Your task to perform on an android device: Search for Mexican restaurants on Maps Image 0: 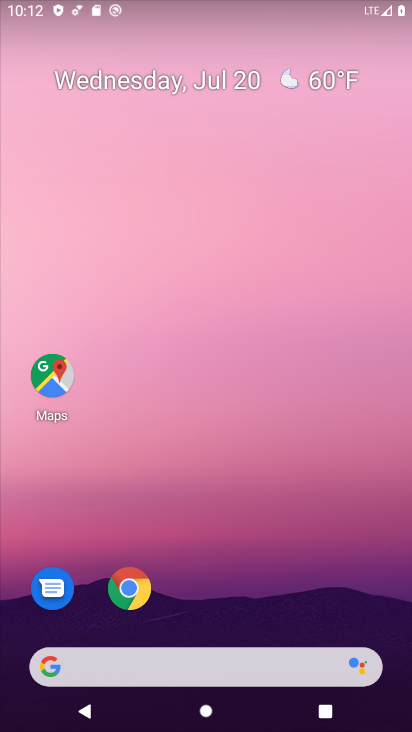
Step 0: click (62, 377)
Your task to perform on an android device: Search for Mexican restaurants on Maps Image 1: 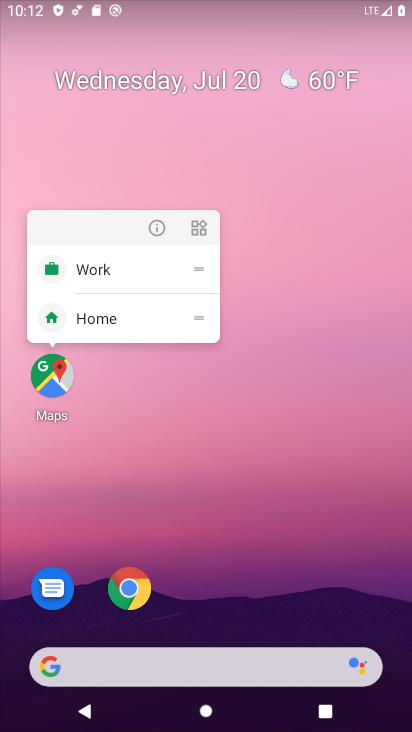
Step 1: click (61, 376)
Your task to perform on an android device: Search for Mexican restaurants on Maps Image 2: 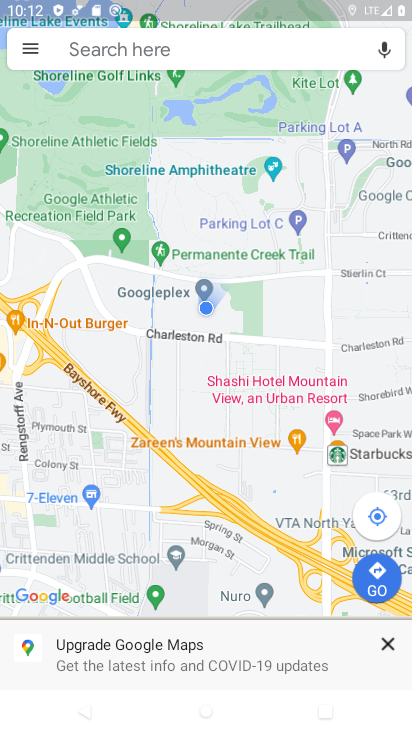
Step 2: click (144, 54)
Your task to perform on an android device: Search for Mexican restaurants on Maps Image 3: 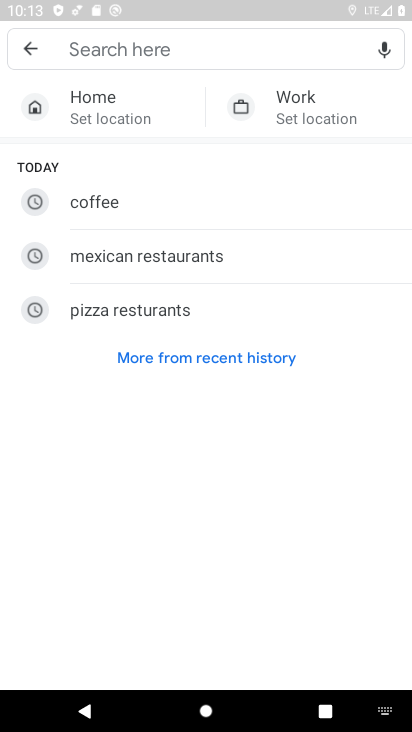
Step 3: type "mexican restaurants"
Your task to perform on an android device: Search for Mexican restaurants on Maps Image 4: 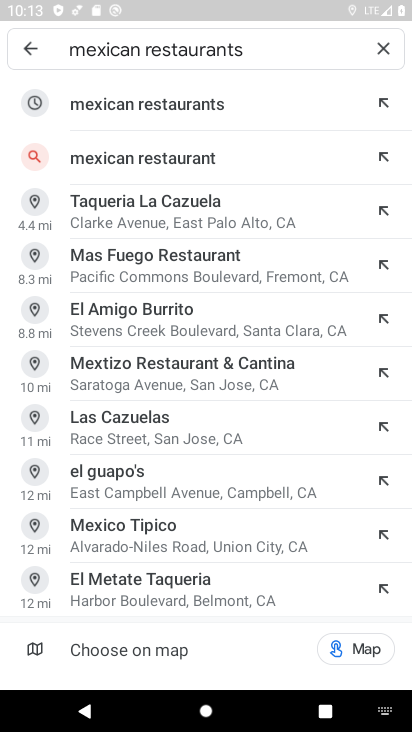
Step 4: click (245, 117)
Your task to perform on an android device: Search for Mexican restaurants on Maps Image 5: 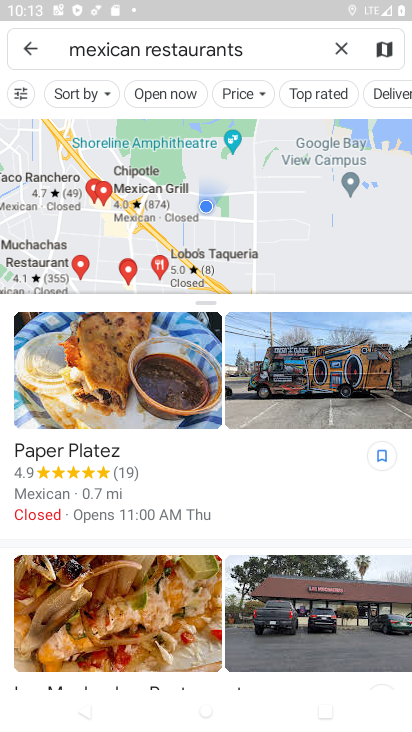
Step 5: task complete